Your task to perform on an android device: refresh tabs in the chrome app Image 0: 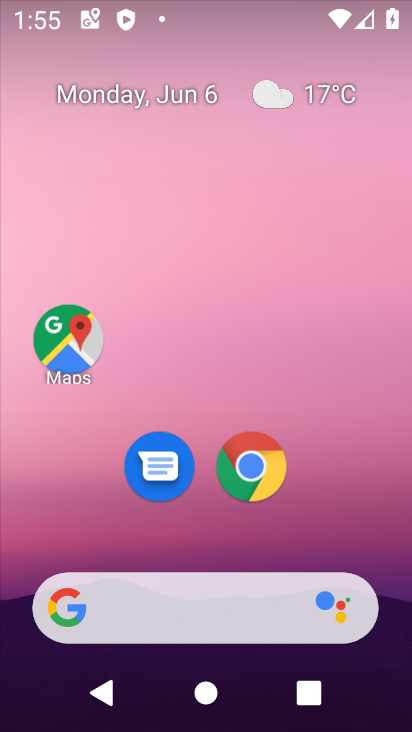
Step 0: click (276, 447)
Your task to perform on an android device: refresh tabs in the chrome app Image 1: 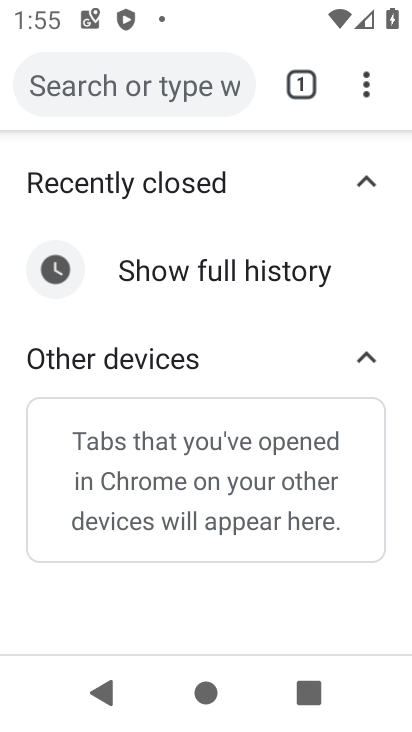
Step 1: click (367, 86)
Your task to perform on an android device: refresh tabs in the chrome app Image 2: 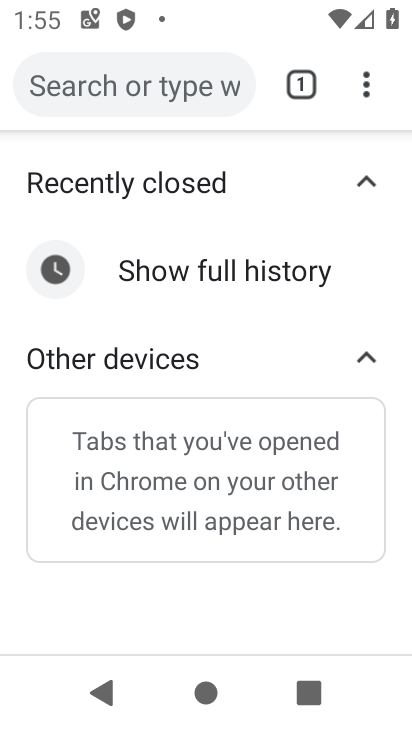
Step 2: click (367, 86)
Your task to perform on an android device: refresh tabs in the chrome app Image 3: 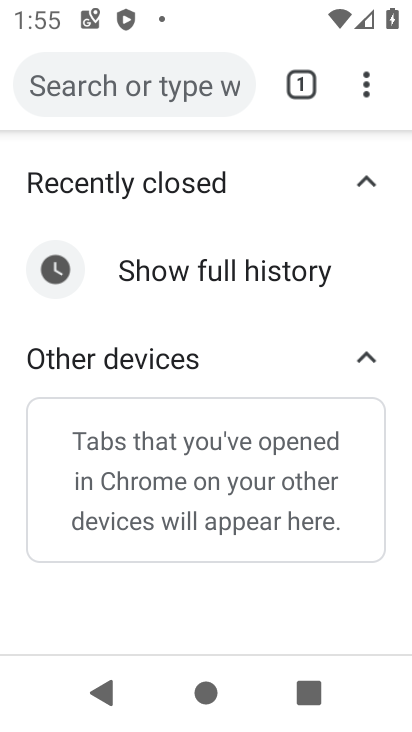
Step 3: task complete